Your task to perform on an android device: add a label to a message in the gmail app Image 0: 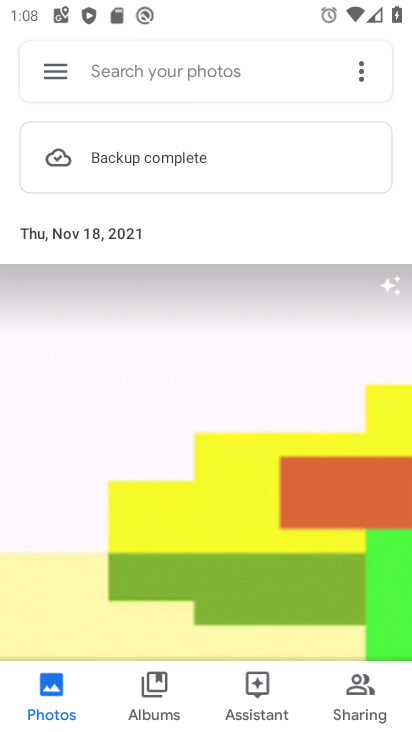
Step 0: press home button
Your task to perform on an android device: add a label to a message in the gmail app Image 1: 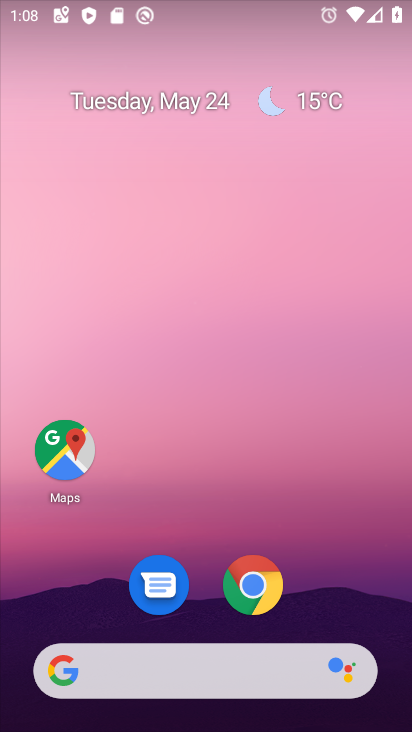
Step 1: drag from (248, 498) to (236, 33)
Your task to perform on an android device: add a label to a message in the gmail app Image 2: 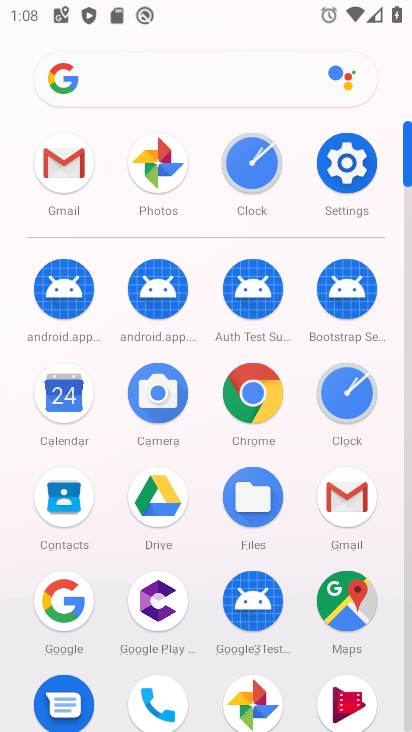
Step 2: click (69, 172)
Your task to perform on an android device: add a label to a message in the gmail app Image 3: 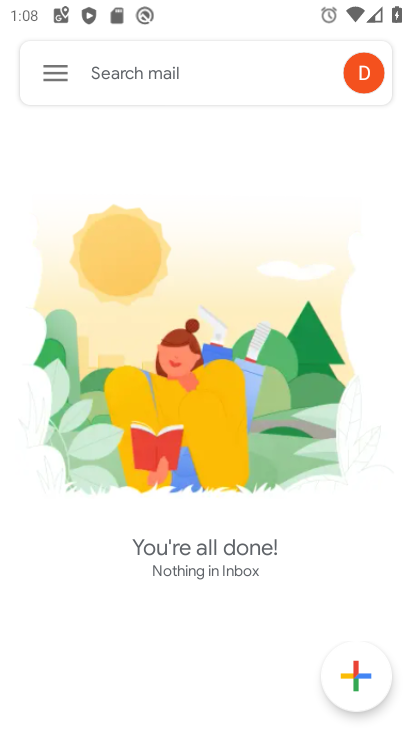
Step 3: click (62, 75)
Your task to perform on an android device: add a label to a message in the gmail app Image 4: 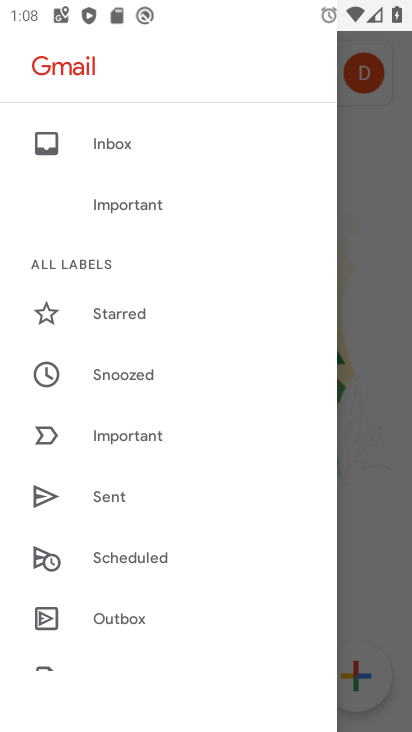
Step 4: drag from (151, 470) to (199, 147)
Your task to perform on an android device: add a label to a message in the gmail app Image 5: 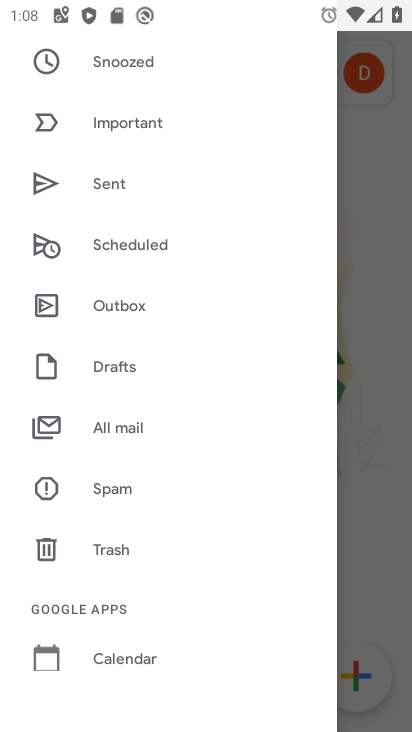
Step 5: click (142, 414)
Your task to perform on an android device: add a label to a message in the gmail app Image 6: 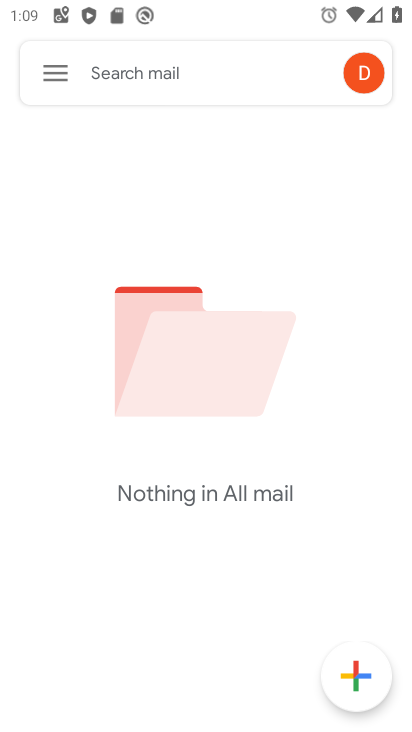
Step 6: task complete